Your task to perform on an android device: turn on location history Image 0: 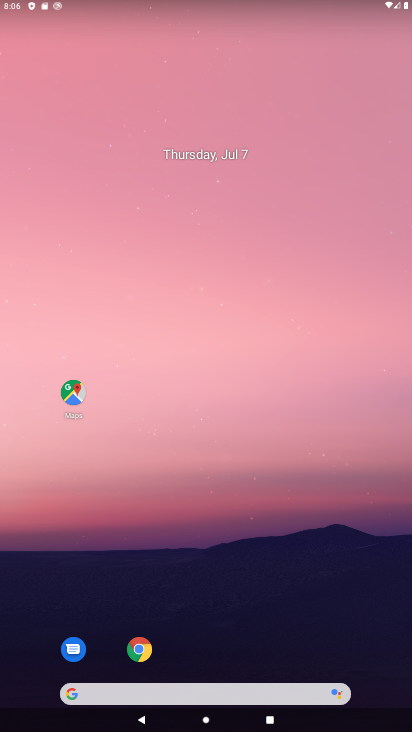
Step 0: click (67, 392)
Your task to perform on an android device: turn on location history Image 1: 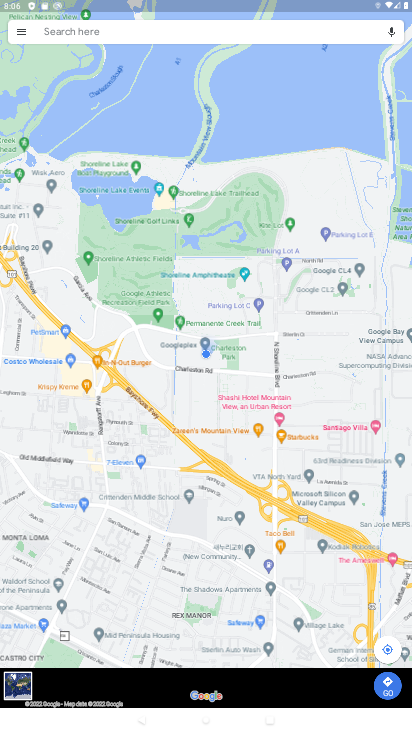
Step 1: click (16, 32)
Your task to perform on an android device: turn on location history Image 2: 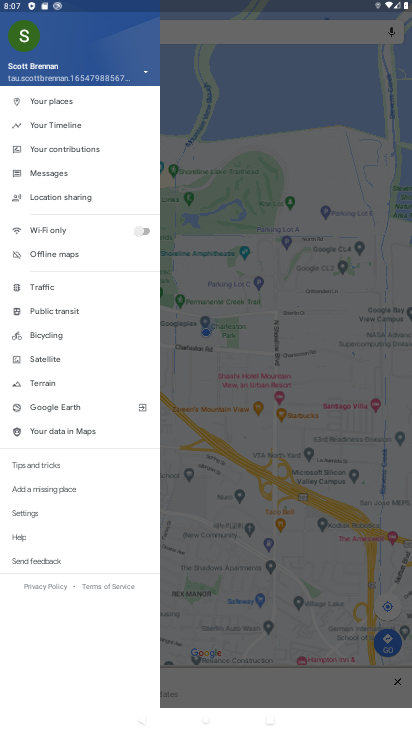
Step 2: click (67, 120)
Your task to perform on an android device: turn on location history Image 3: 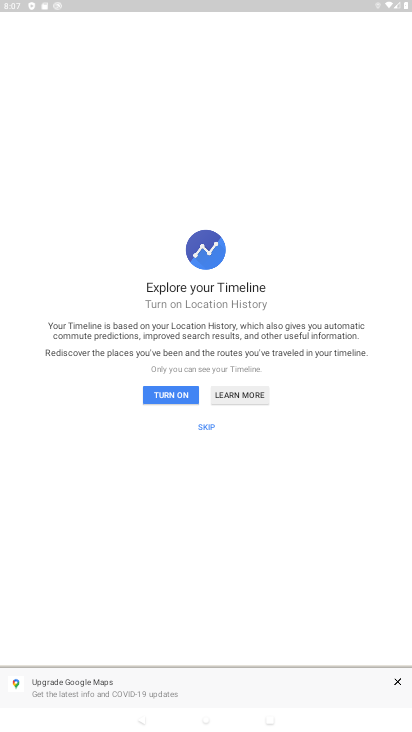
Step 3: click (211, 418)
Your task to perform on an android device: turn on location history Image 4: 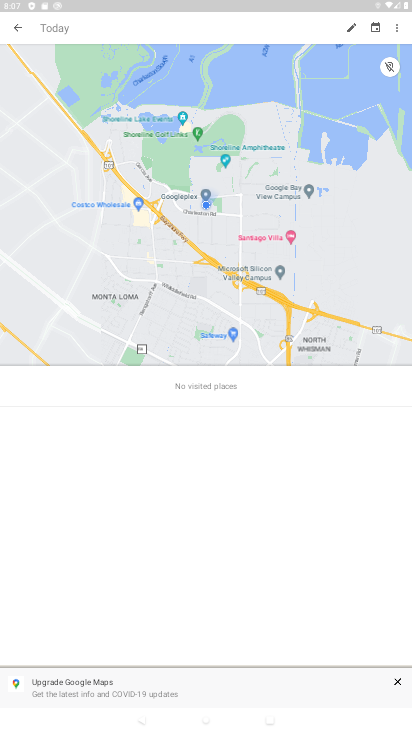
Step 4: click (400, 28)
Your task to perform on an android device: turn on location history Image 5: 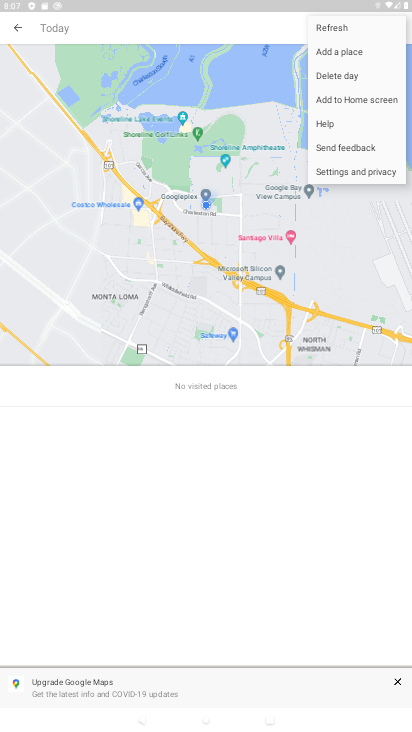
Step 5: click (360, 171)
Your task to perform on an android device: turn on location history Image 6: 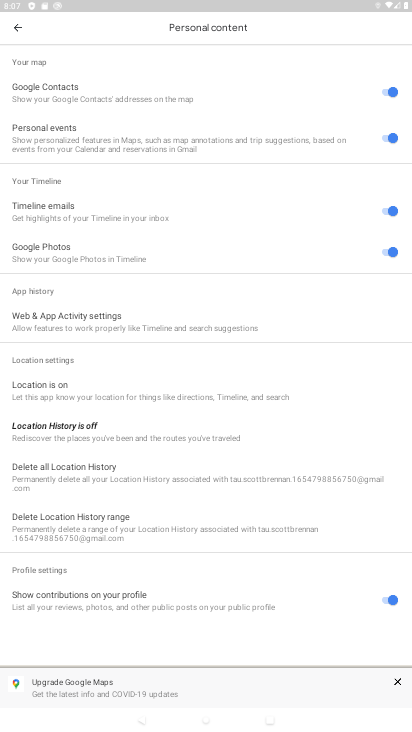
Step 6: click (61, 421)
Your task to perform on an android device: turn on location history Image 7: 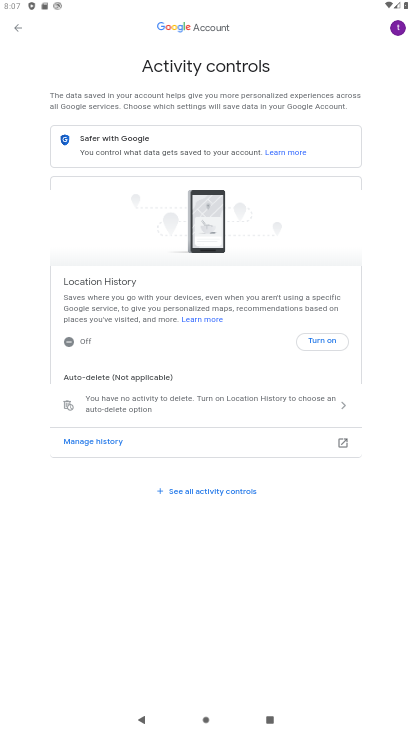
Step 7: click (319, 340)
Your task to perform on an android device: turn on location history Image 8: 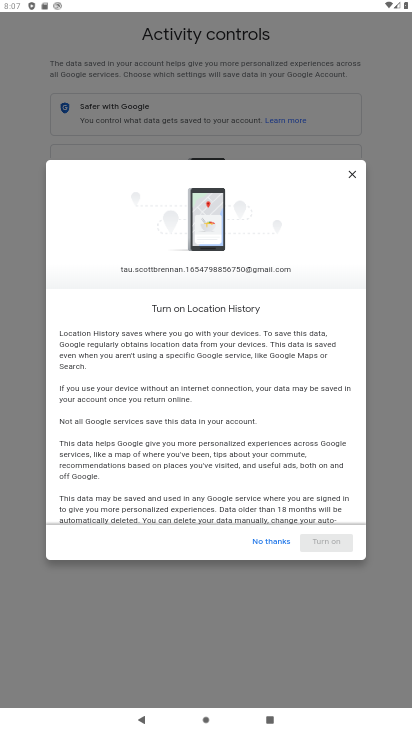
Step 8: drag from (249, 470) to (204, 252)
Your task to perform on an android device: turn on location history Image 9: 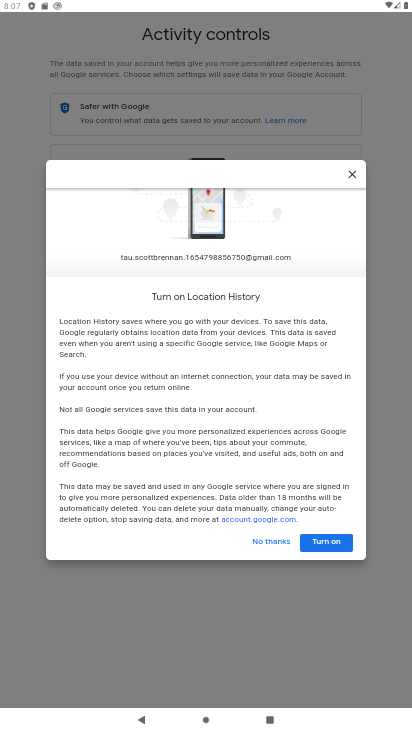
Step 9: click (325, 541)
Your task to perform on an android device: turn on location history Image 10: 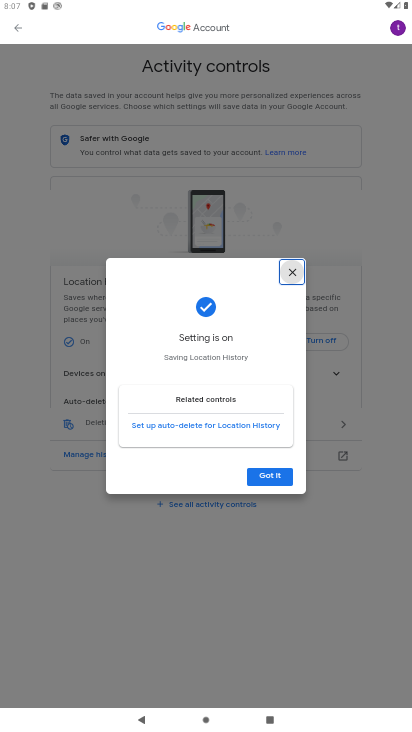
Step 10: click (279, 475)
Your task to perform on an android device: turn on location history Image 11: 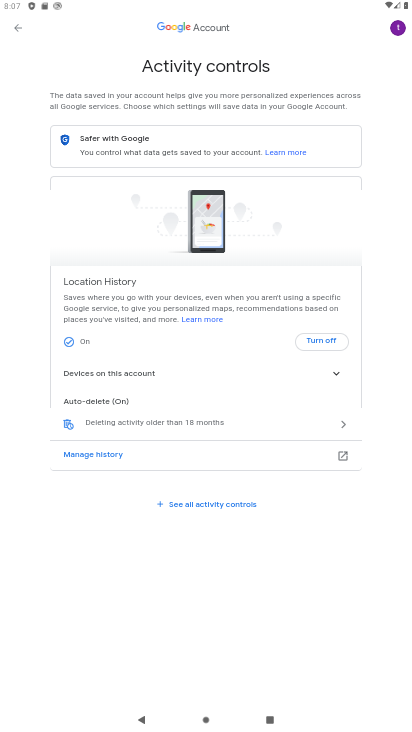
Step 11: task complete